Your task to perform on an android device: Open Youtube and go to the subscriptions tab Image 0: 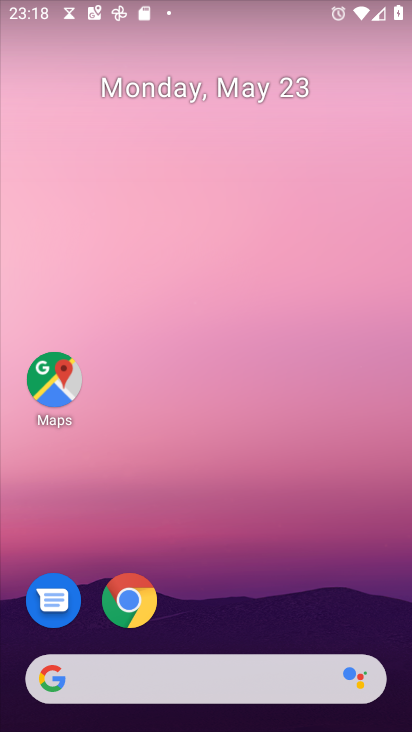
Step 0: drag from (236, 703) to (238, 190)
Your task to perform on an android device: Open Youtube and go to the subscriptions tab Image 1: 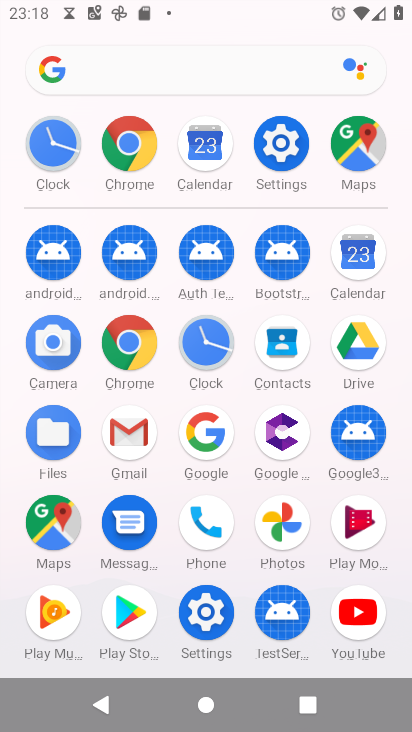
Step 1: click (349, 621)
Your task to perform on an android device: Open Youtube and go to the subscriptions tab Image 2: 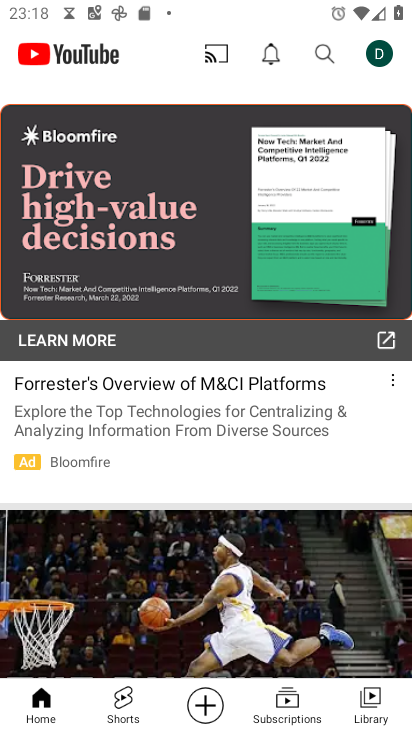
Step 2: click (286, 697)
Your task to perform on an android device: Open Youtube and go to the subscriptions tab Image 3: 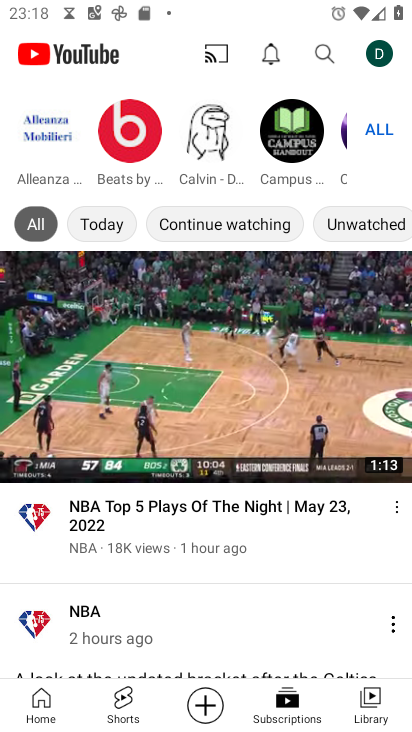
Step 3: task complete